Your task to perform on an android device: install app "Facebook Lite" Image 0: 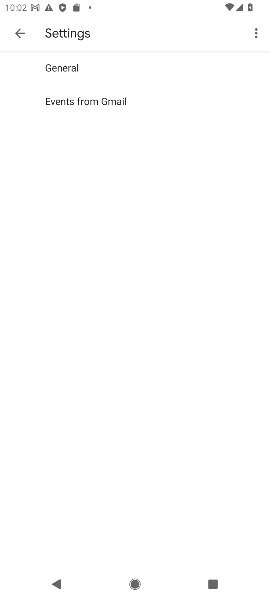
Step 0: press home button
Your task to perform on an android device: install app "Facebook Lite" Image 1: 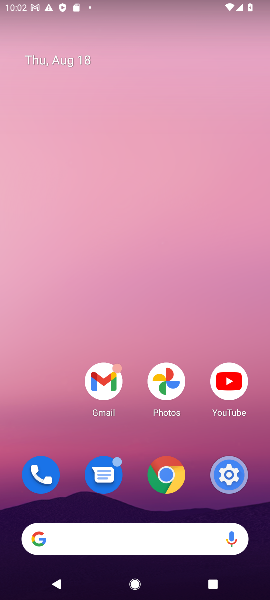
Step 1: drag from (131, 499) to (110, 38)
Your task to perform on an android device: install app "Facebook Lite" Image 2: 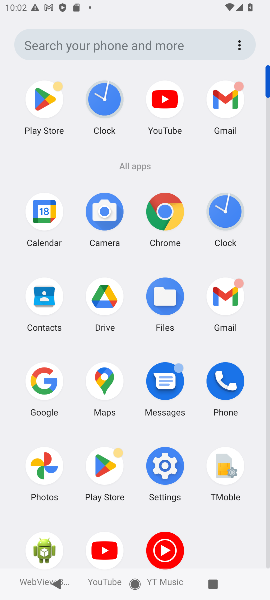
Step 2: click (98, 469)
Your task to perform on an android device: install app "Facebook Lite" Image 3: 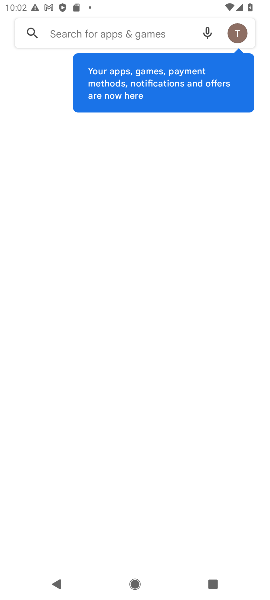
Step 3: click (81, 30)
Your task to perform on an android device: install app "Facebook Lite" Image 4: 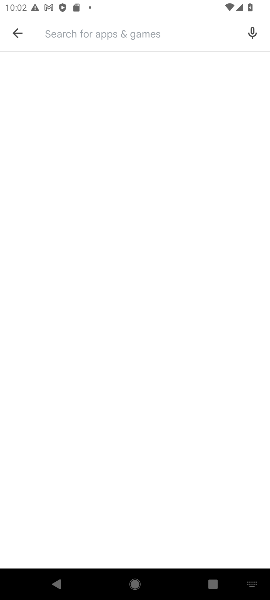
Step 4: type "Facebook Lite"
Your task to perform on an android device: install app "Facebook Lite" Image 5: 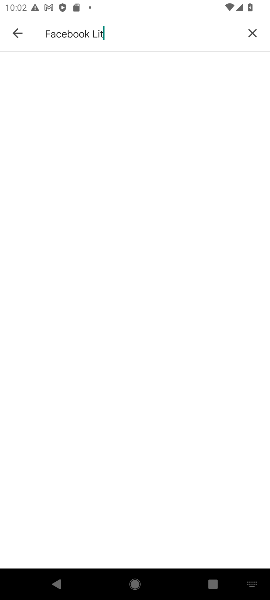
Step 5: type ""
Your task to perform on an android device: install app "Facebook Lite" Image 6: 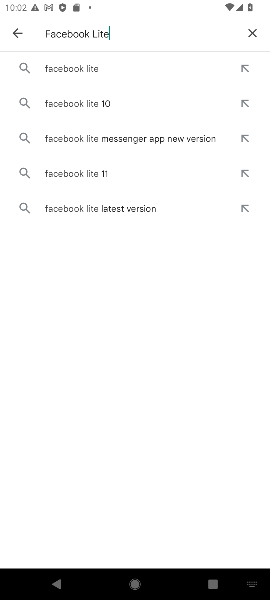
Step 6: click (91, 76)
Your task to perform on an android device: install app "Facebook Lite" Image 7: 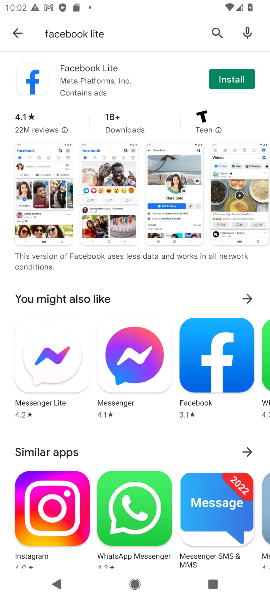
Step 7: click (249, 72)
Your task to perform on an android device: install app "Facebook Lite" Image 8: 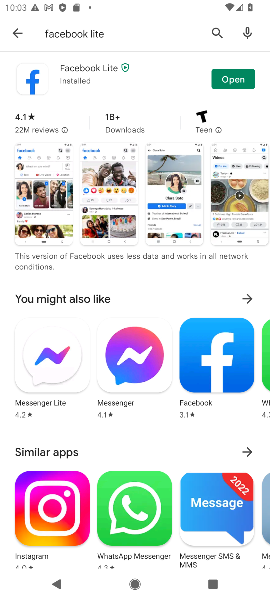
Step 8: click (129, 84)
Your task to perform on an android device: install app "Facebook Lite" Image 9: 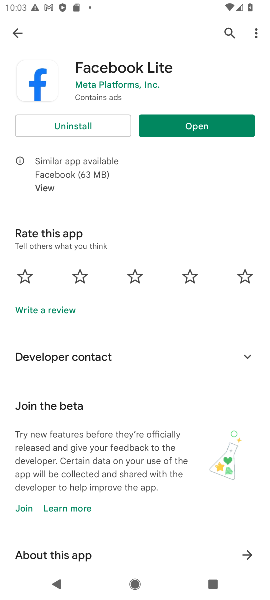
Step 9: click (223, 120)
Your task to perform on an android device: install app "Facebook Lite" Image 10: 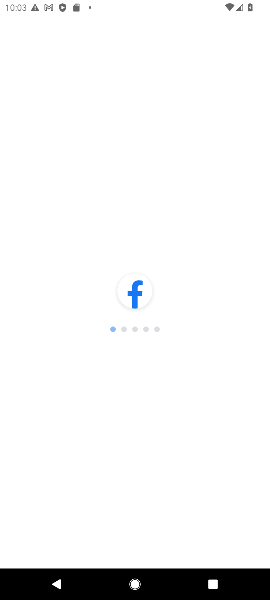
Step 10: press home button
Your task to perform on an android device: install app "Facebook Lite" Image 11: 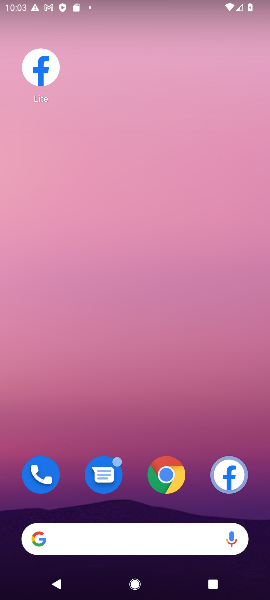
Step 11: drag from (127, 508) to (124, 138)
Your task to perform on an android device: install app "Facebook Lite" Image 12: 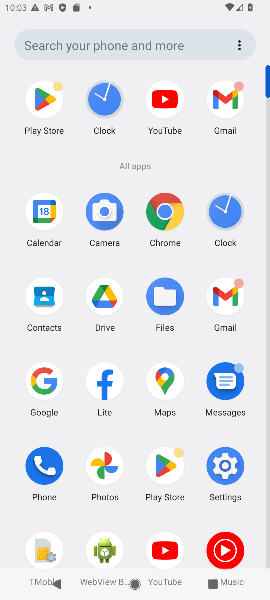
Step 12: click (152, 466)
Your task to perform on an android device: install app "Facebook Lite" Image 13: 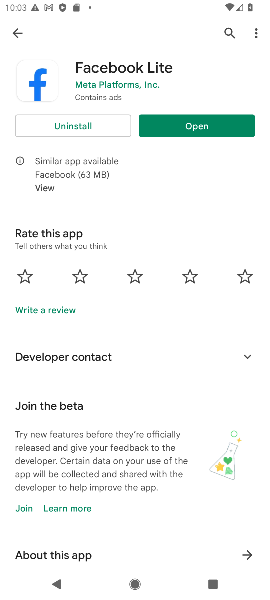
Step 13: click (18, 32)
Your task to perform on an android device: install app "Facebook Lite" Image 14: 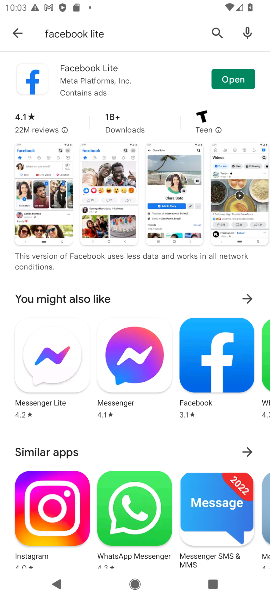
Step 14: click (18, 27)
Your task to perform on an android device: install app "Facebook Lite" Image 15: 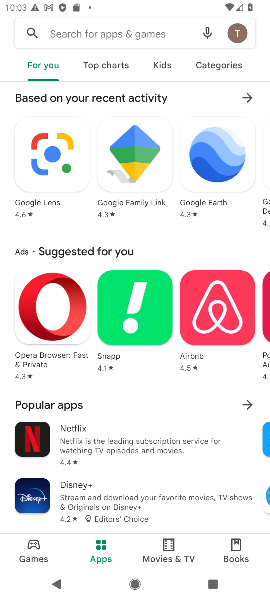
Step 15: click (61, 32)
Your task to perform on an android device: install app "Facebook Lite" Image 16: 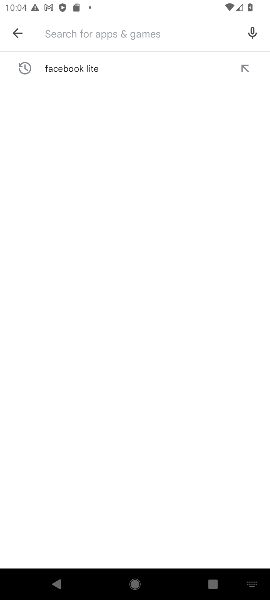
Step 16: click (71, 76)
Your task to perform on an android device: install app "Facebook Lite" Image 17: 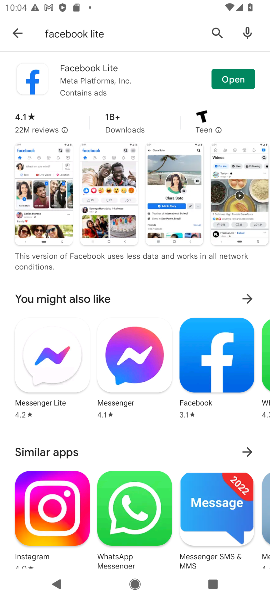
Step 17: click (230, 78)
Your task to perform on an android device: install app "Facebook Lite" Image 18: 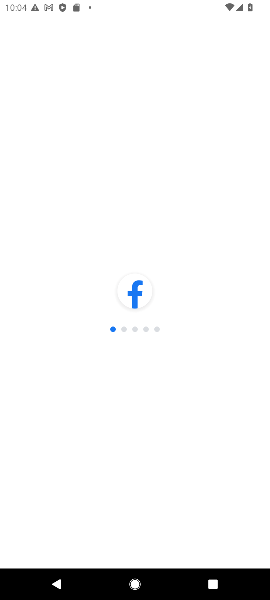
Step 18: task complete